Your task to perform on an android device: Open eBay Image 0: 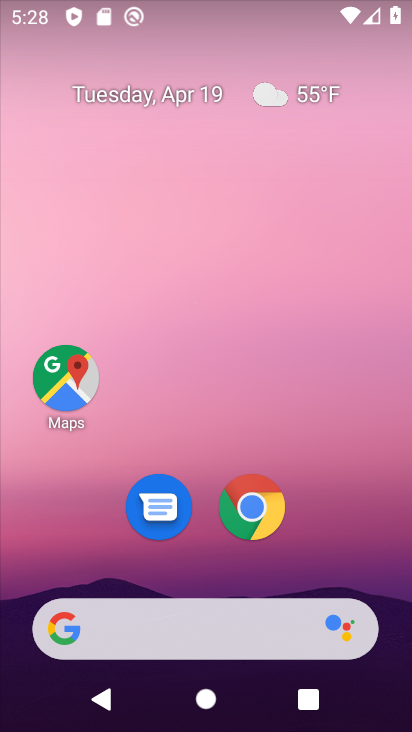
Step 0: drag from (239, 586) to (239, 311)
Your task to perform on an android device: Open eBay Image 1: 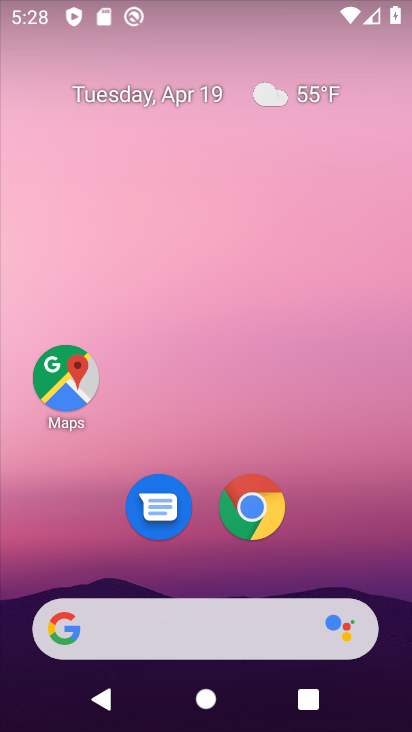
Step 1: drag from (175, 613) to (215, 277)
Your task to perform on an android device: Open eBay Image 2: 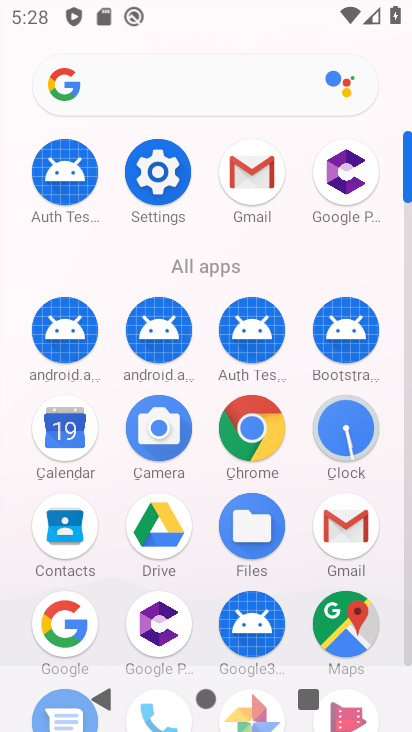
Step 2: click (250, 427)
Your task to perform on an android device: Open eBay Image 3: 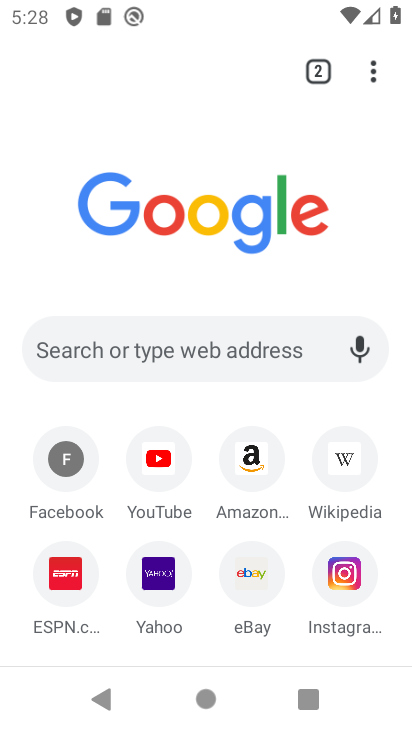
Step 3: click (263, 575)
Your task to perform on an android device: Open eBay Image 4: 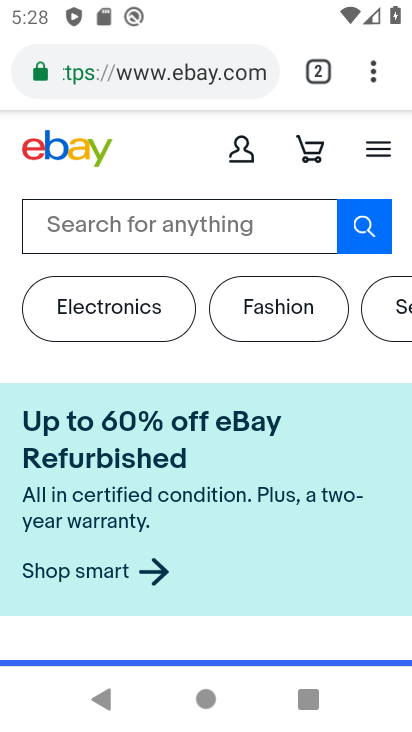
Step 4: task complete